Your task to perform on an android device: change the clock display to digital Image 0: 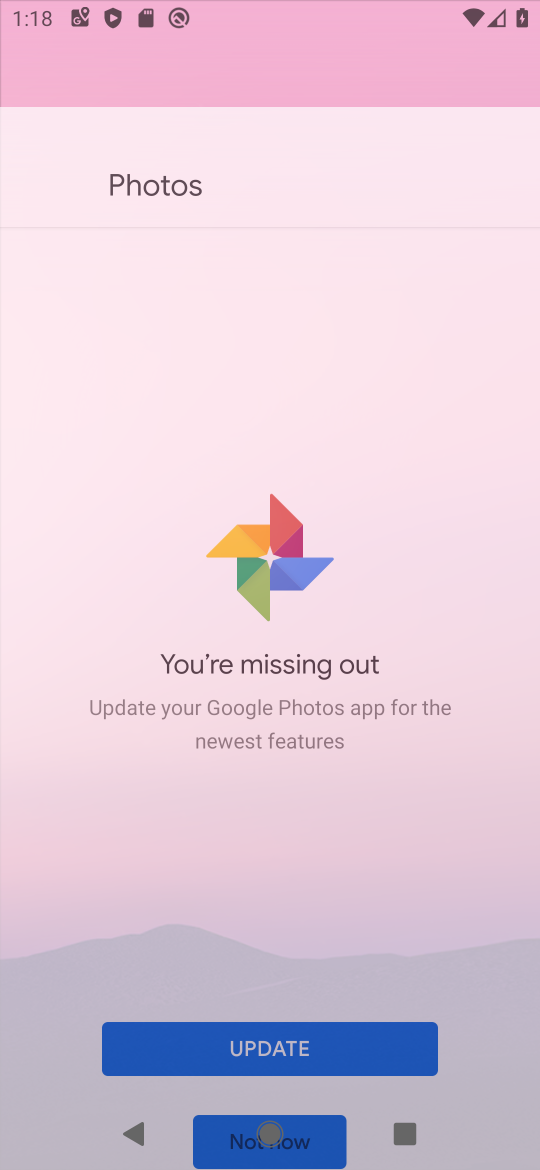
Step 0: press home button
Your task to perform on an android device: change the clock display to digital Image 1: 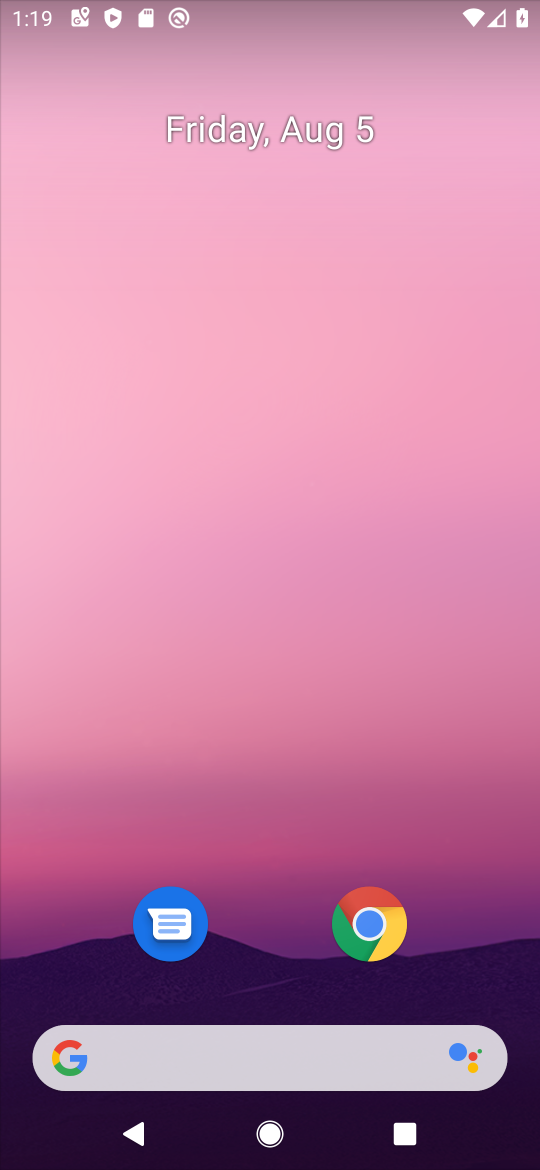
Step 1: drag from (235, 1030) to (228, 135)
Your task to perform on an android device: change the clock display to digital Image 2: 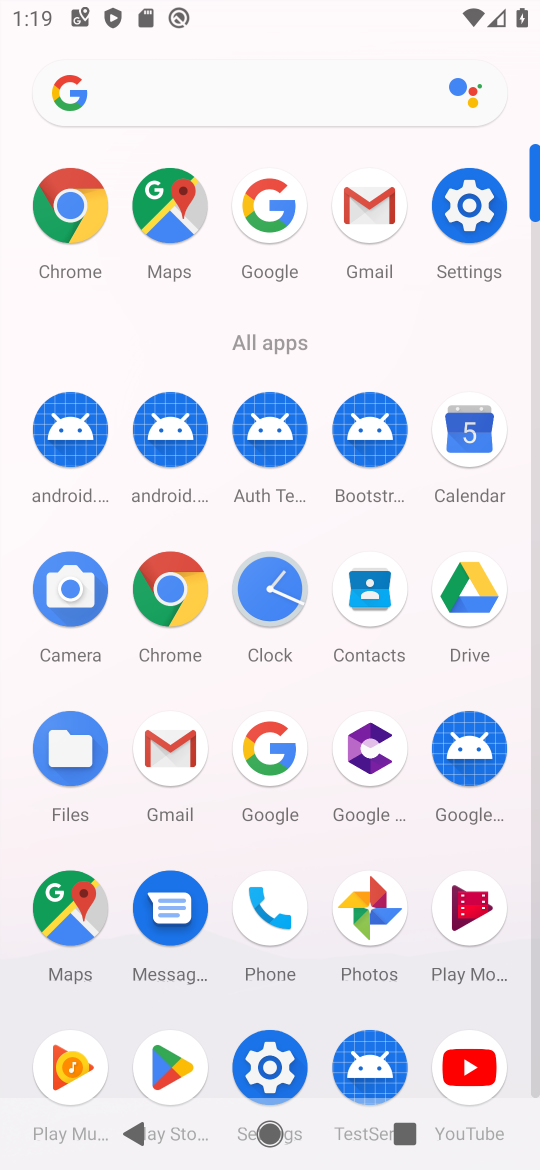
Step 2: click (269, 590)
Your task to perform on an android device: change the clock display to digital Image 3: 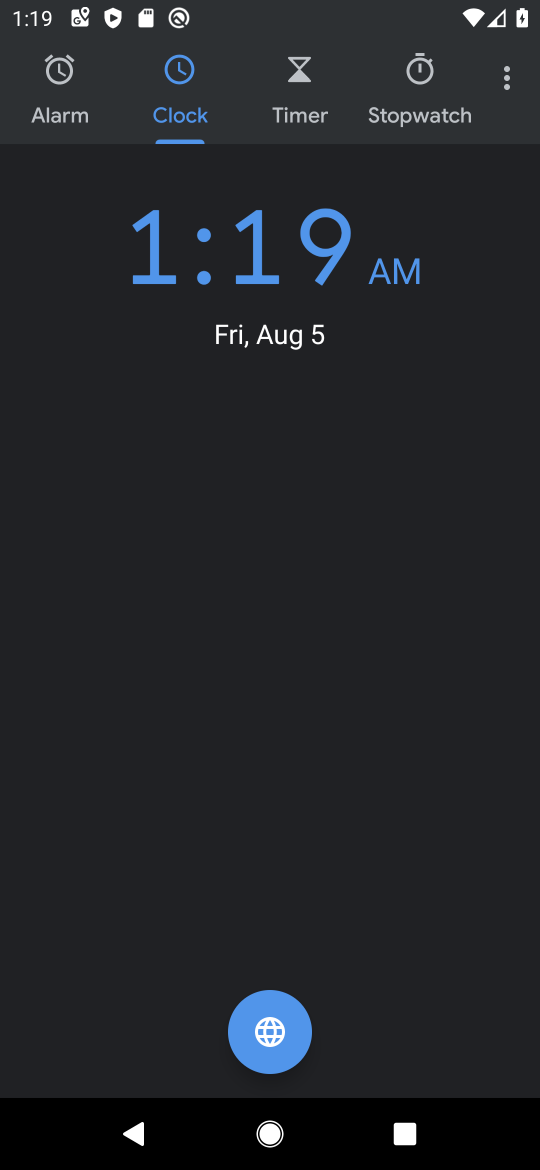
Step 3: click (506, 80)
Your task to perform on an android device: change the clock display to digital Image 4: 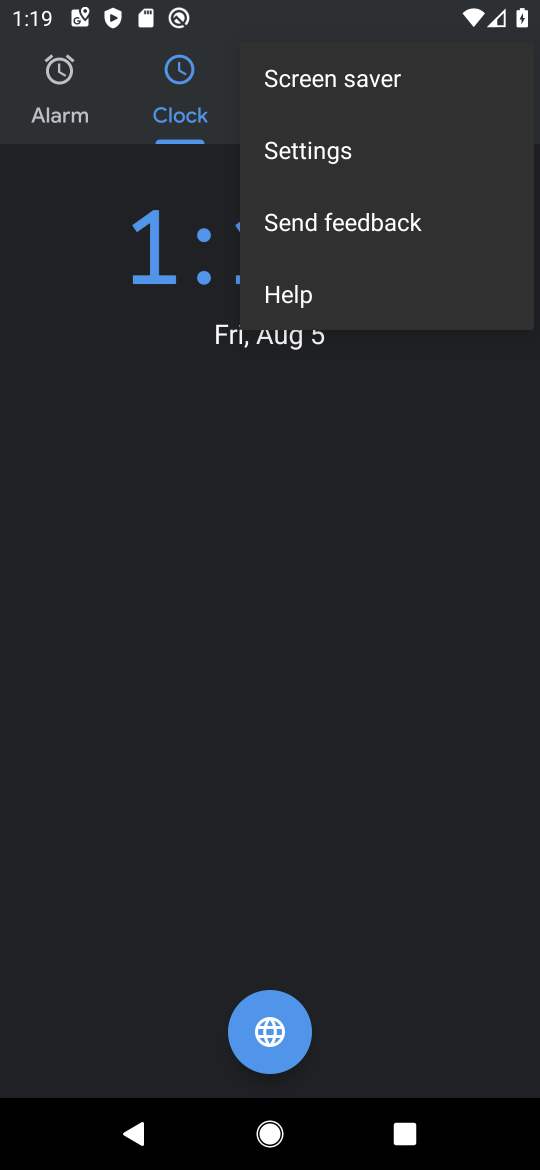
Step 4: click (344, 160)
Your task to perform on an android device: change the clock display to digital Image 5: 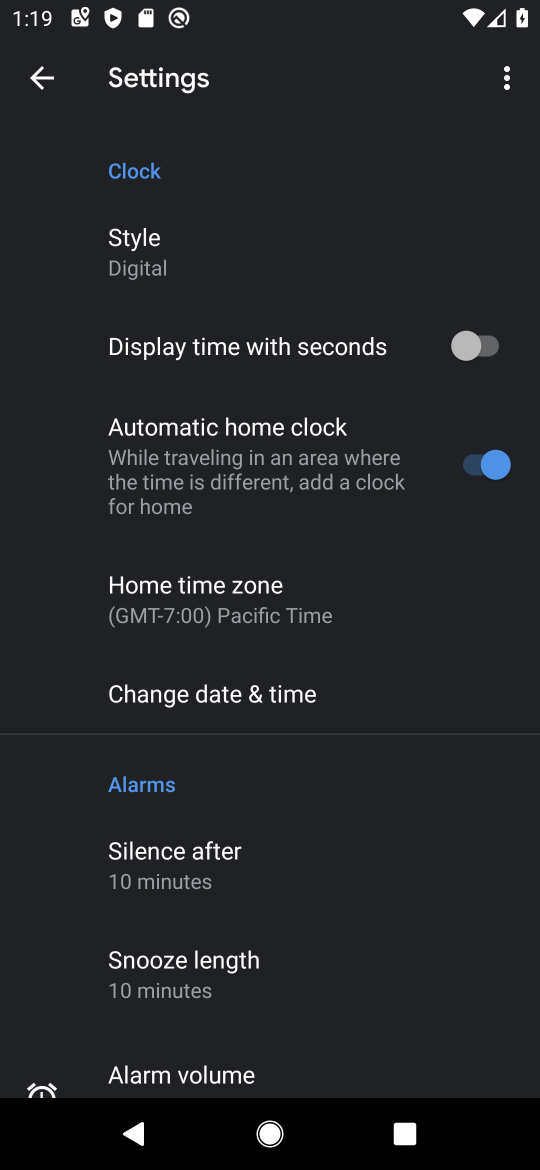
Step 5: click (144, 258)
Your task to perform on an android device: change the clock display to digital Image 6: 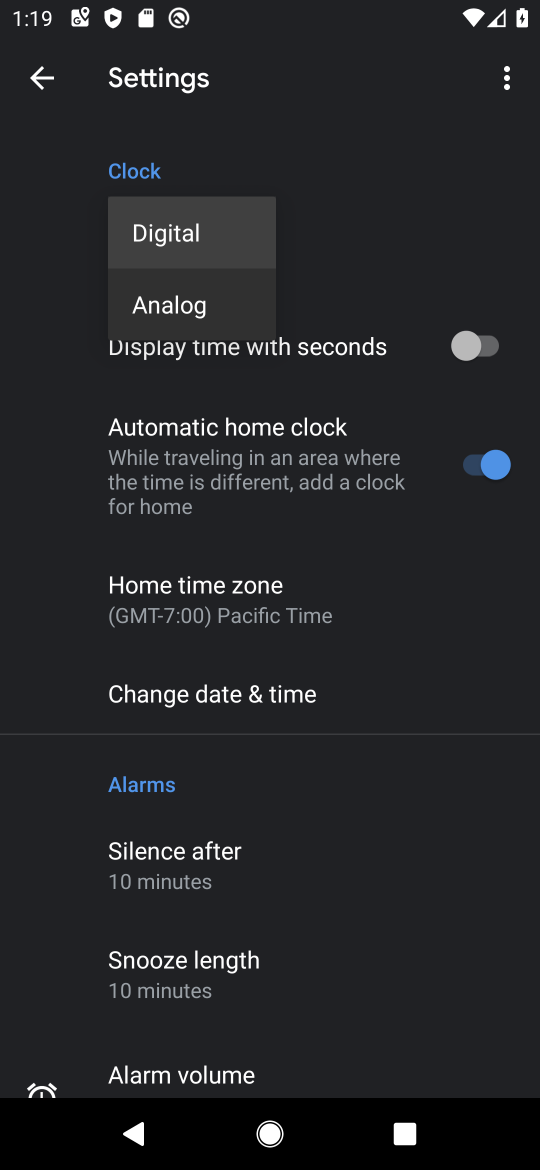
Step 6: click (167, 240)
Your task to perform on an android device: change the clock display to digital Image 7: 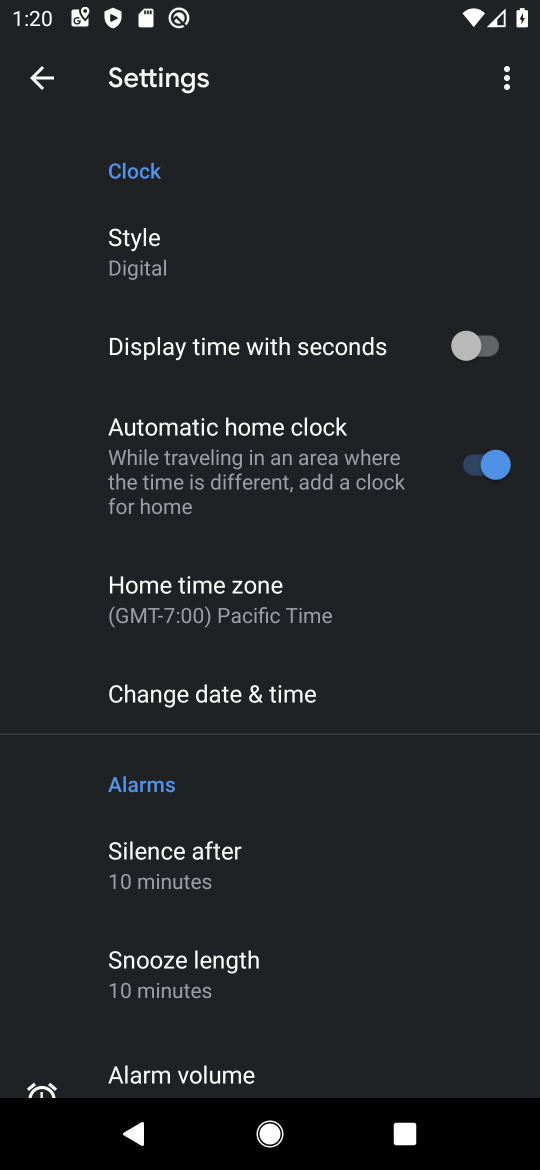
Step 7: task complete